Your task to perform on an android device: Check the weather Image 0: 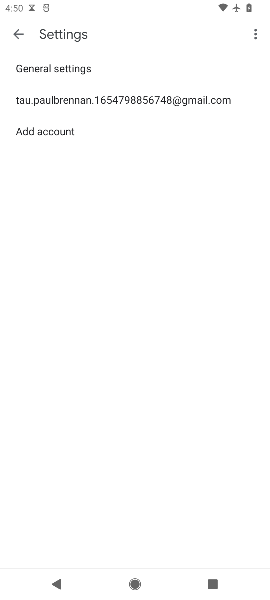
Step 0: press home button
Your task to perform on an android device: Check the weather Image 1: 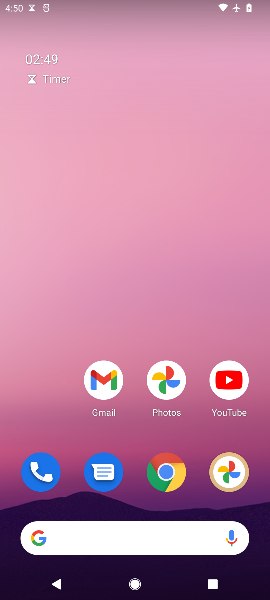
Step 1: click (124, 534)
Your task to perform on an android device: Check the weather Image 2: 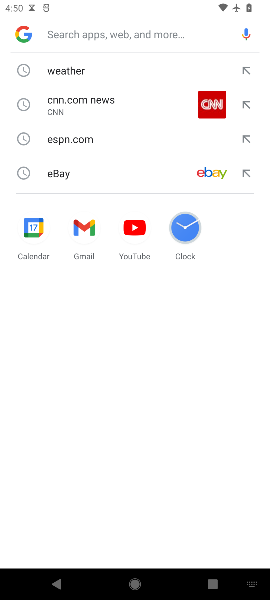
Step 2: click (68, 71)
Your task to perform on an android device: Check the weather Image 3: 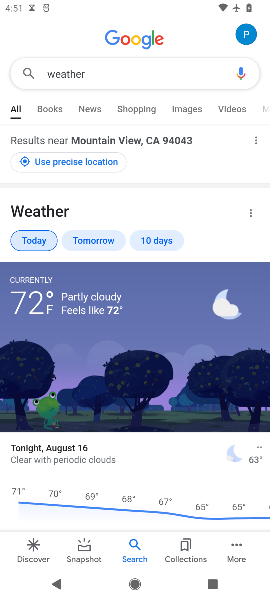
Step 3: task complete